Your task to perform on an android device: create a new album in the google photos Image 0: 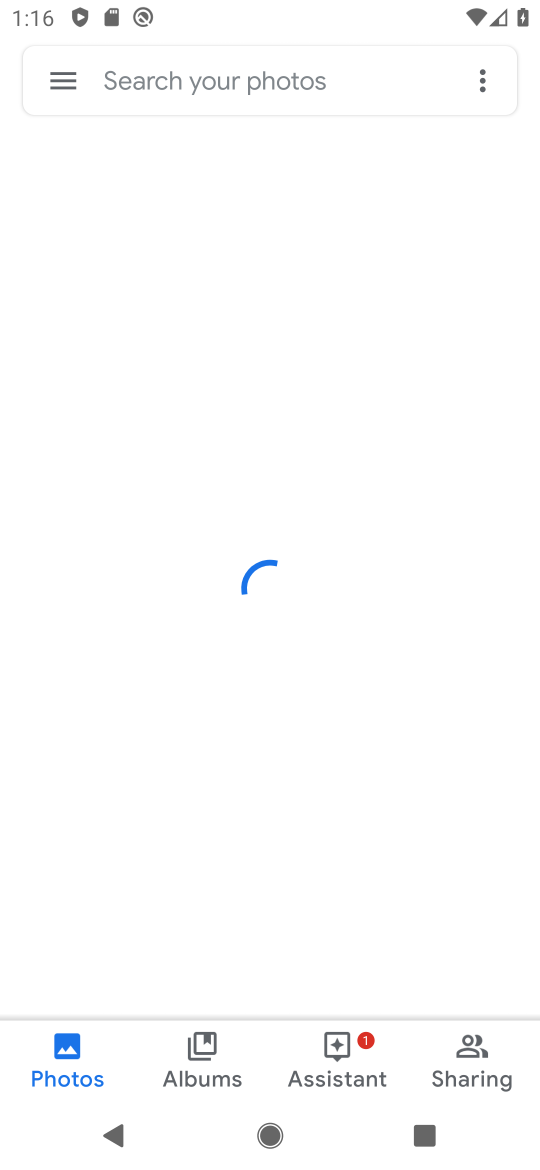
Step 0: press home button
Your task to perform on an android device: create a new album in the google photos Image 1: 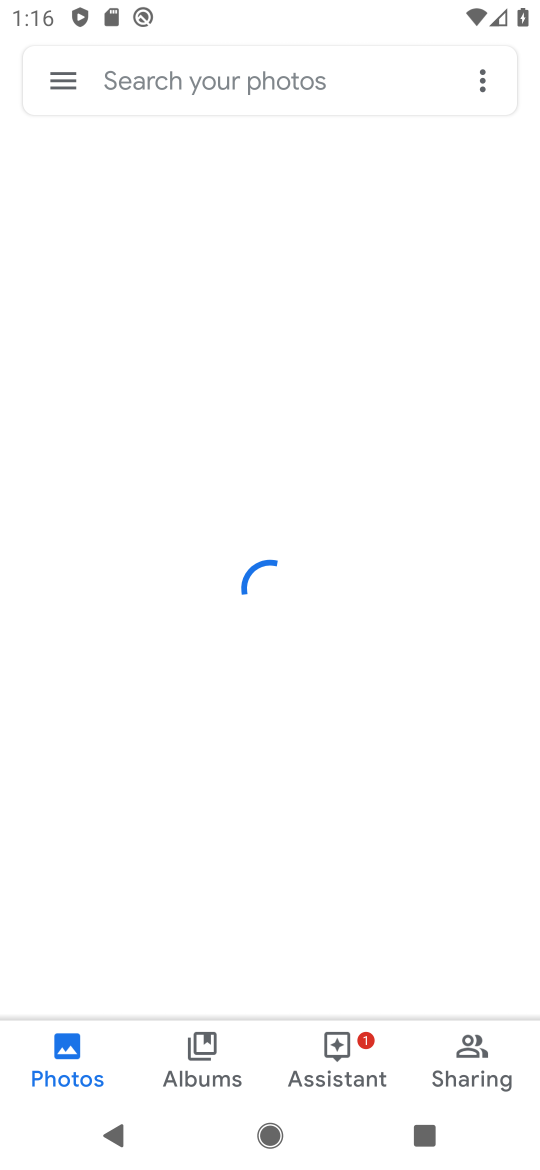
Step 1: click (339, 405)
Your task to perform on an android device: create a new album in the google photos Image 2: 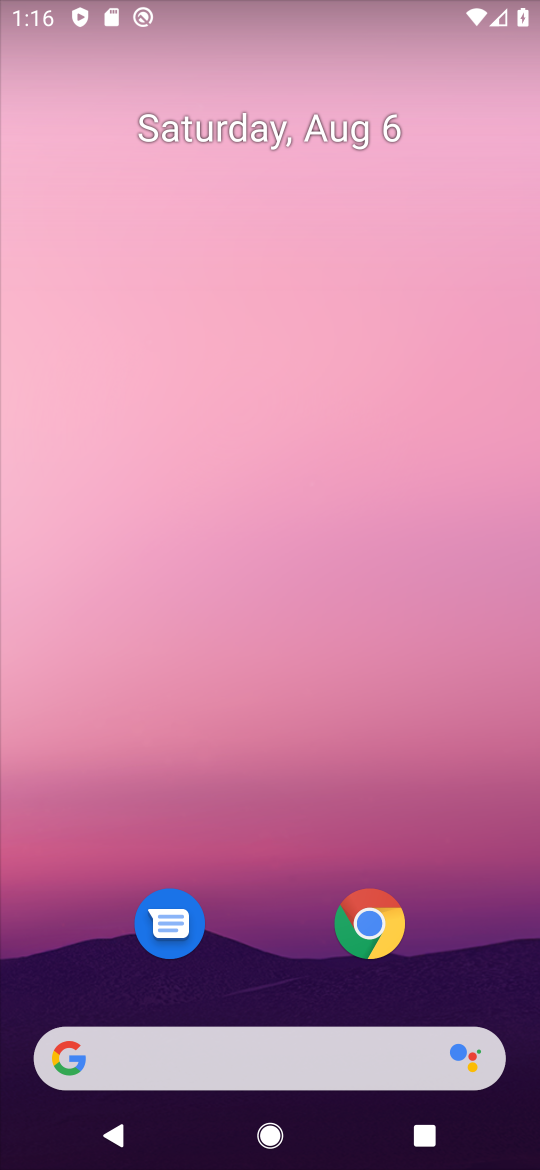
Step 2: drag from (223, 916) to (298, 401)
Your task to perform on an android device: create a new album in the google photos Image 3: 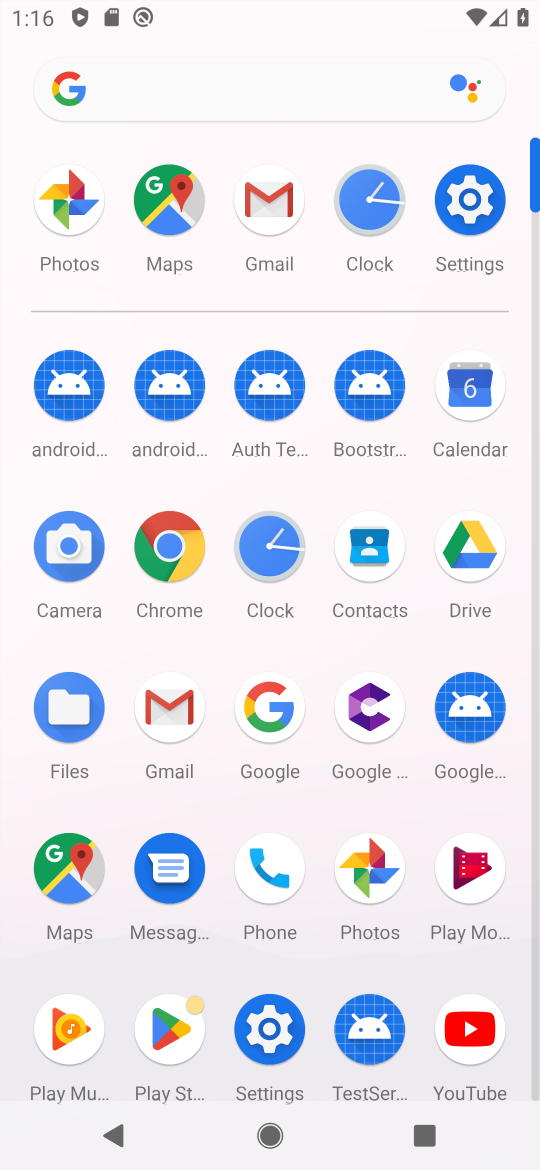
Step 3: click (360, 871)
Your task to perform on an android device: create a new album in the google photos Image 4: 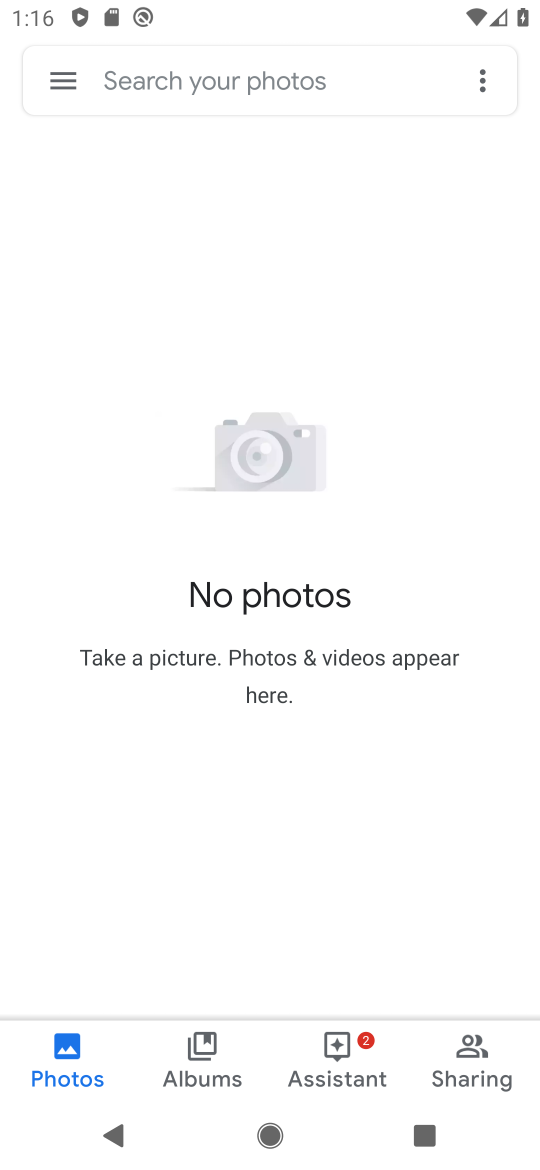
Step 4: click (187, 1053)
Your task to perform on an android device: create a new album in the google photos Image 5: 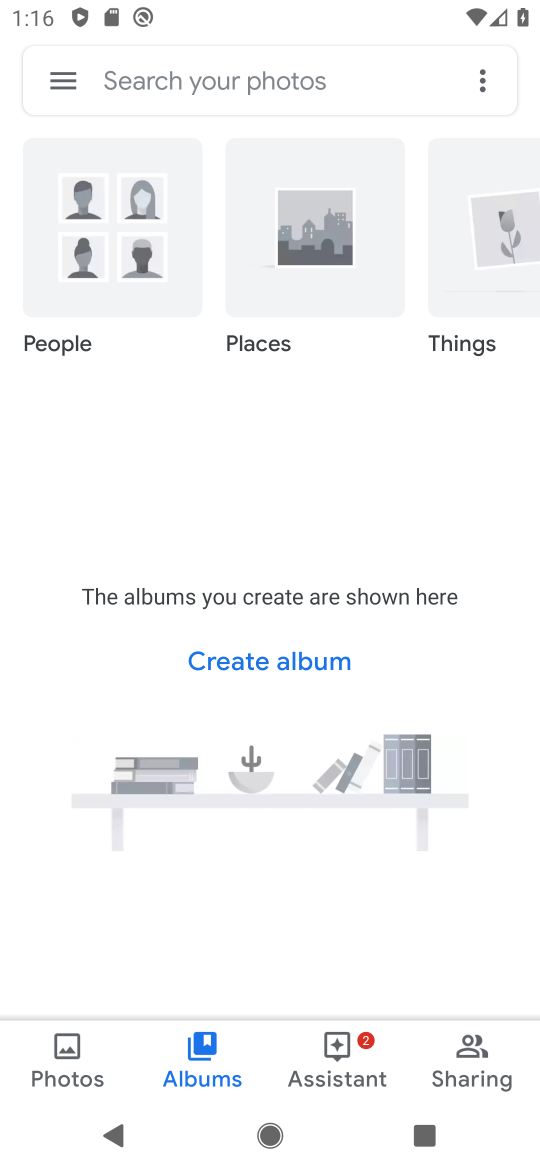
Step 5: click (221, 654)
Your task to perform on an android device: create a new album in the google photos Image 6: 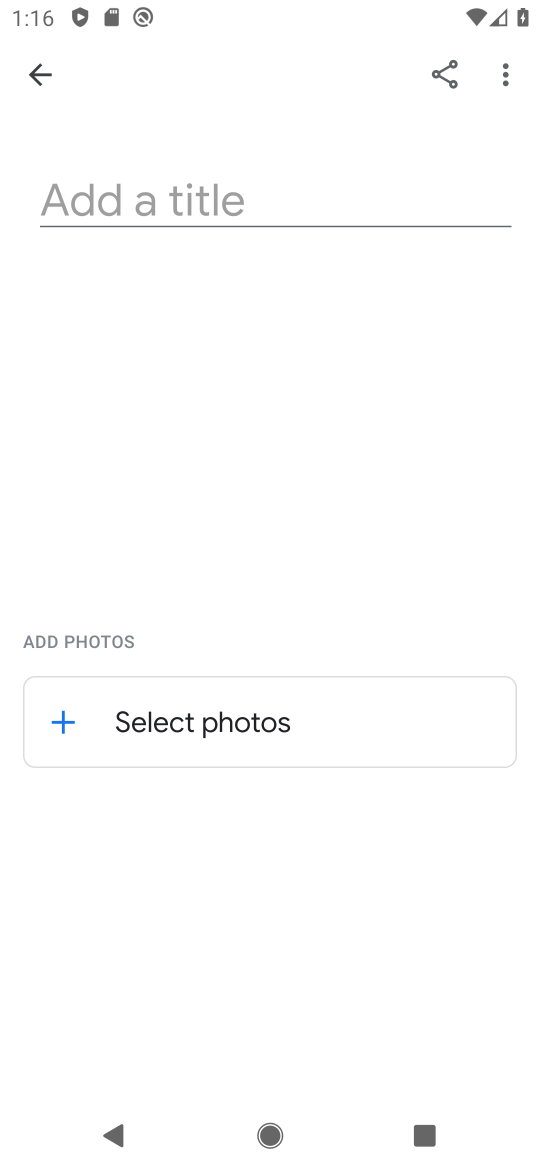
Step 6: click (172, 205)
Your task to perform on an android device: create a new album in the google photos Image 7: 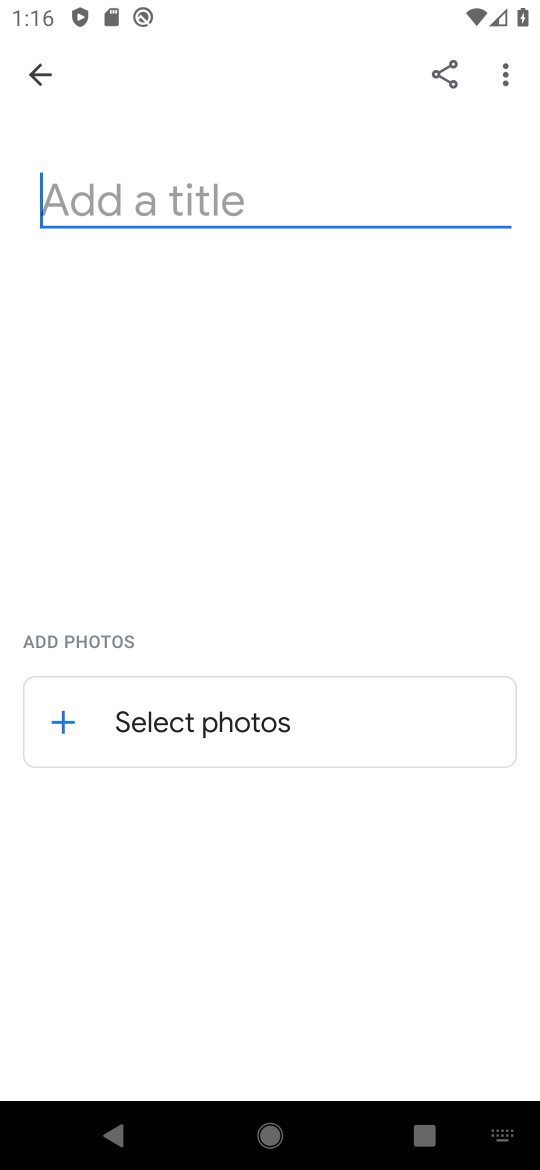
Step 7: type "mbjjkn"
Your task to perform on an android device: create a new album in the google photos Image 8: 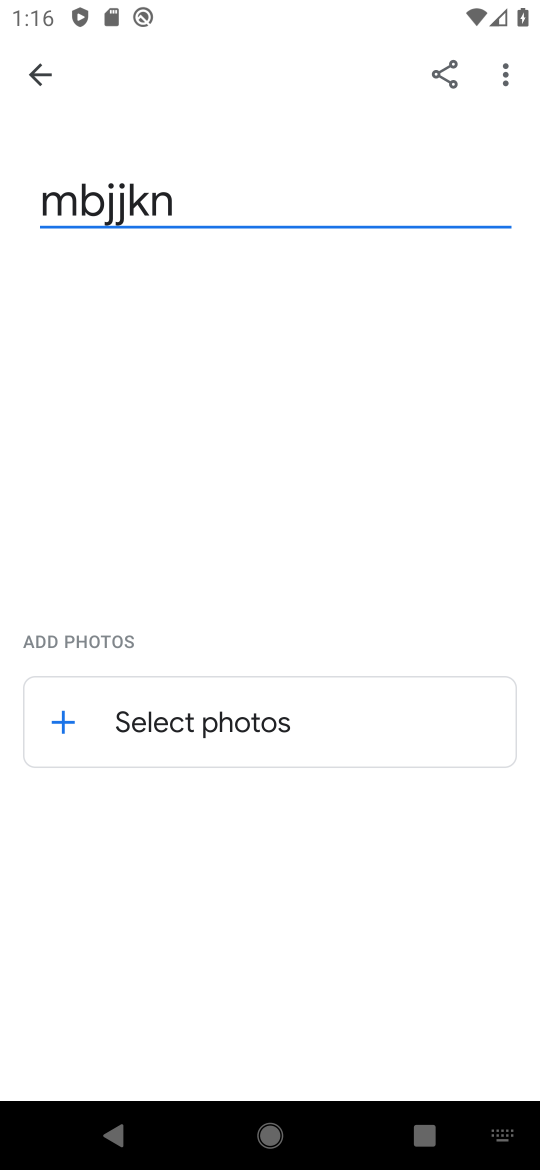
Step 8: drag from (263, 320) to (253, 95)
Your task to perform on an android device: create a new album in the google photos Image 9: 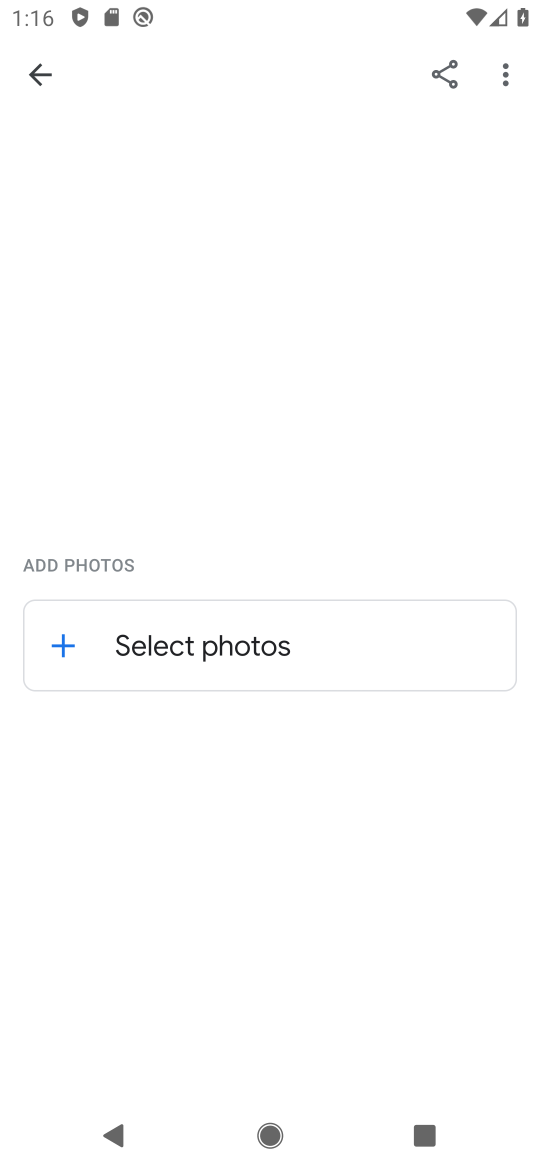
Step 9: drag from (191, 455) to (137, 890)
Your task to perform on an android device: create a new album in the google photos Image 10: 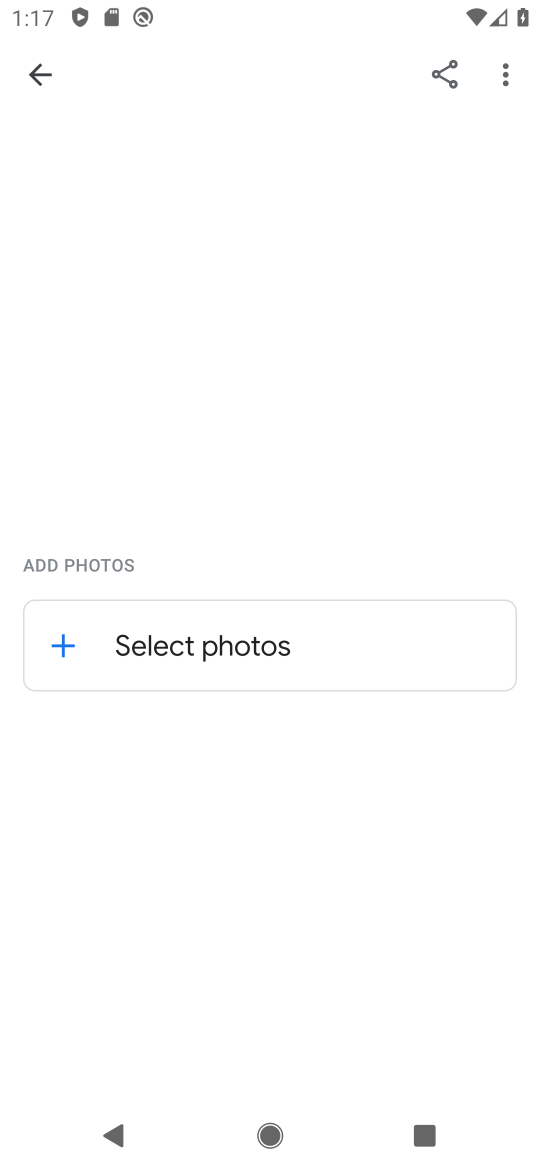
Step 10: drag from (205, 356) to (114, 658)
Your task to perform on an android device: create a new album in the google photos Image 11: 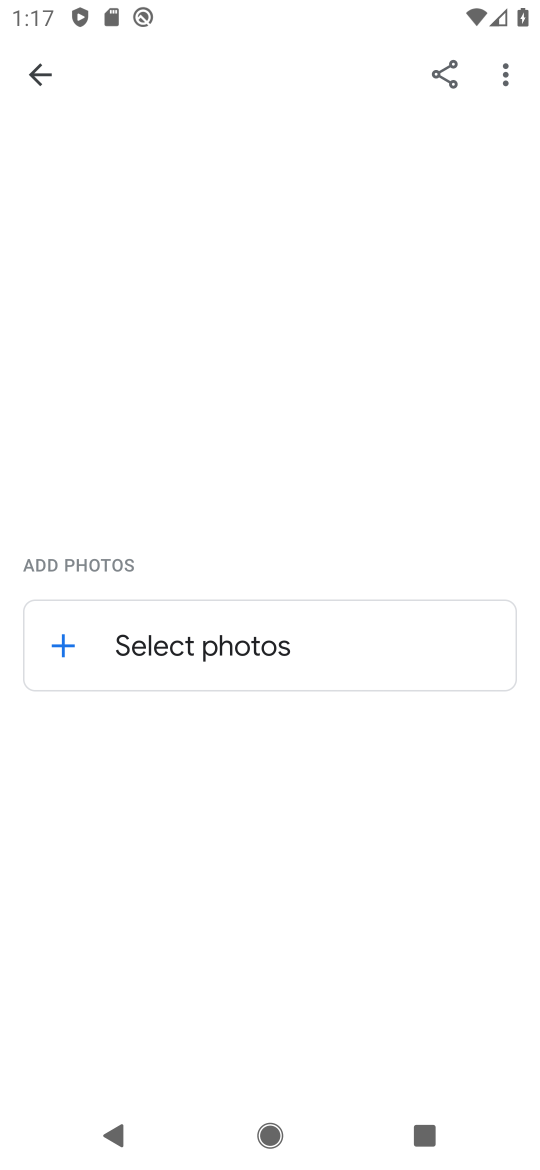
Step 11: click (86, 638)
Your task to perform on an android device: create a new album in the google photos Image 12: 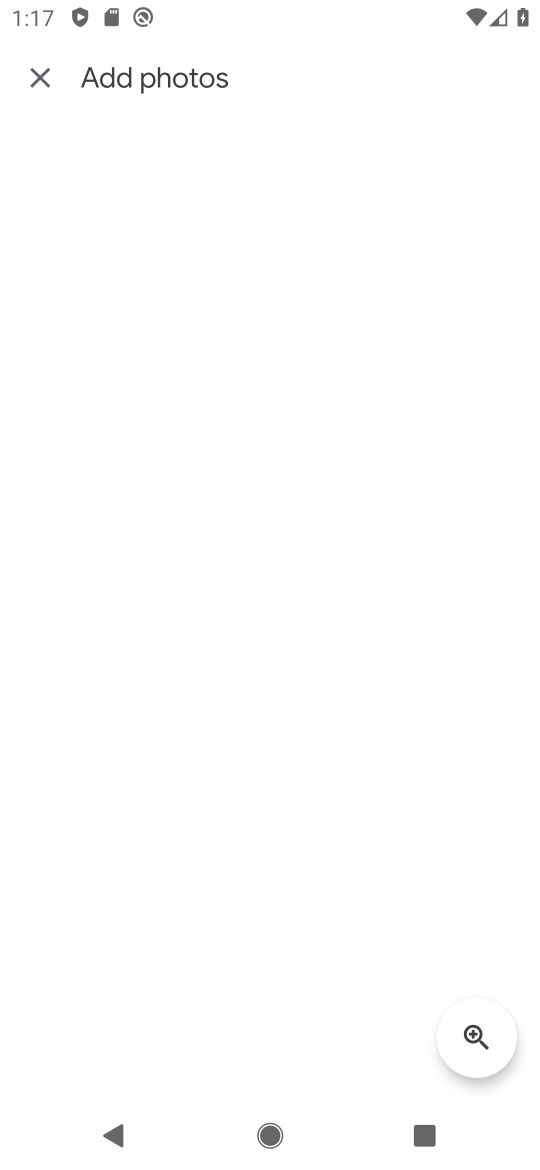
Step 12: task complete